Your task to perform on an android device: Search for Italian restaurants on Maps Image 0: 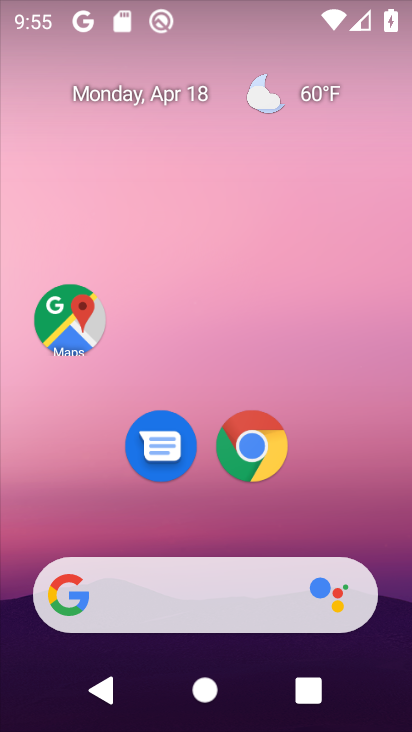
Step 0: drag from (387, 519) to (368, 124)
Your task to perform on an android device: Search for Italian restaurants on Maps Image 1: 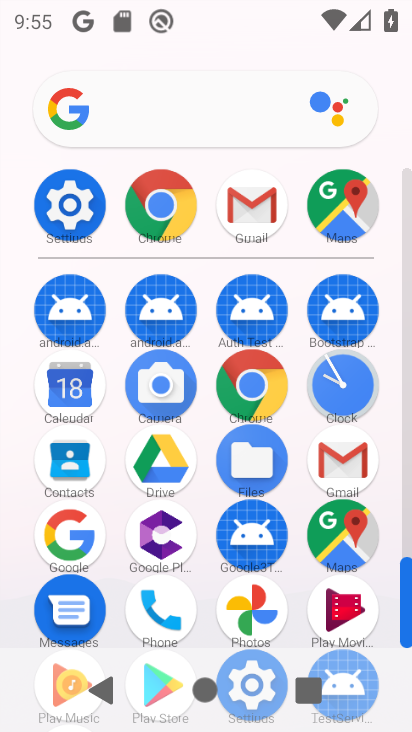
Step 1: click (346, 543)
Your task to perform on an android device: Search for Italian restaurants on Maps Image 2: 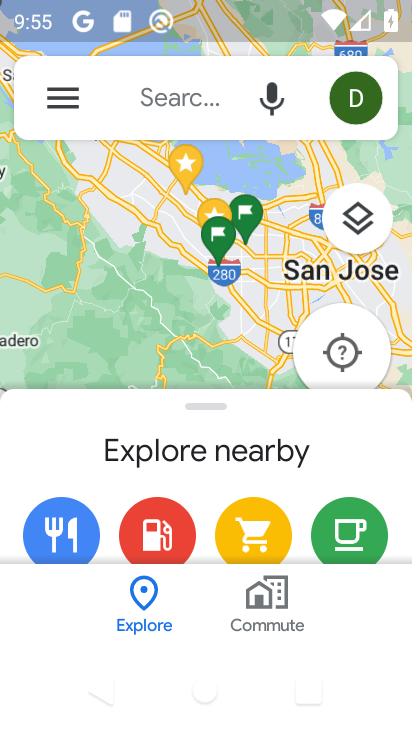
Step 2: click (155, 104)
Your task to perform on an android device: Search for Italian restaurants on Maps Image 3: 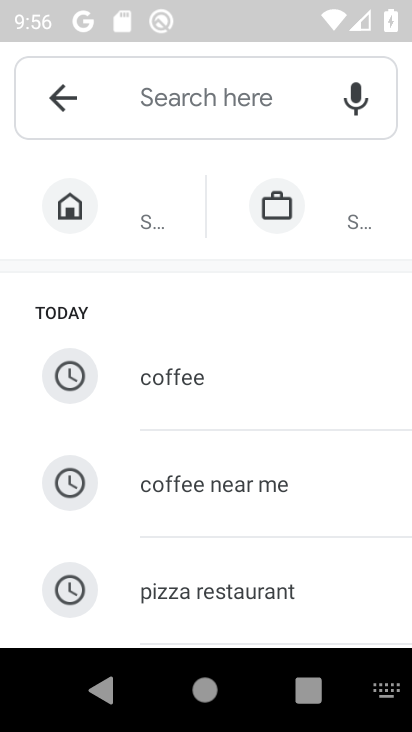
Step 3: type "italian restaurants"
Your task to perform on an android device: Search for Italian restaurants on Maps Image 4: 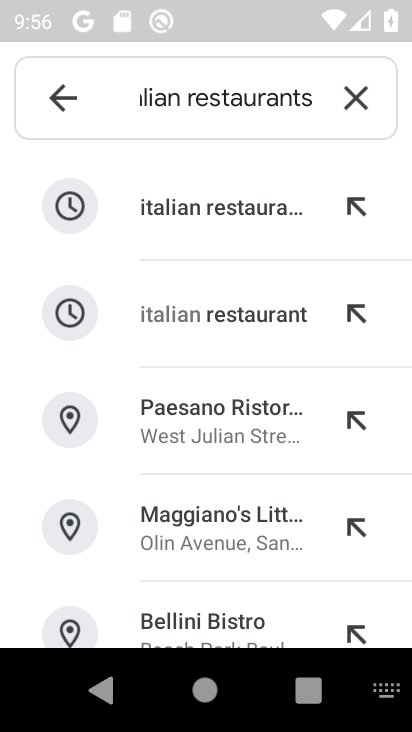
Step 4: click (245, 204)
Your task to perform on an android device: Search for Italian restaurants on Maps Image 5: 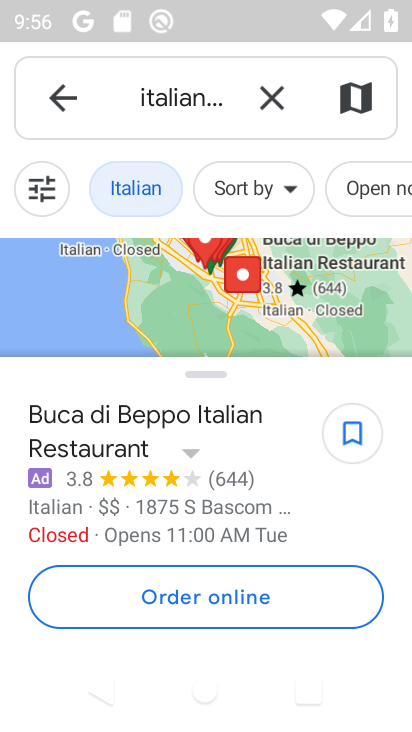
Step 5: task complete